Your task to perform on an android device: Open the stopwatch Image 0: 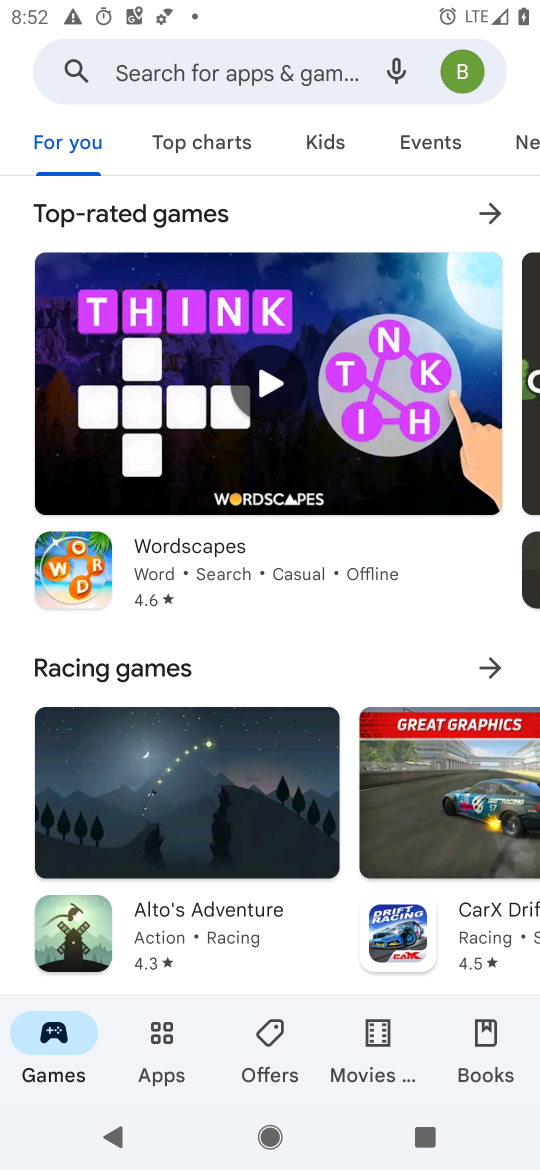
Step 0: drag from (324, 955) to (392, 571)
Your task to perform on an android device: Open the stopwatch Image 1: 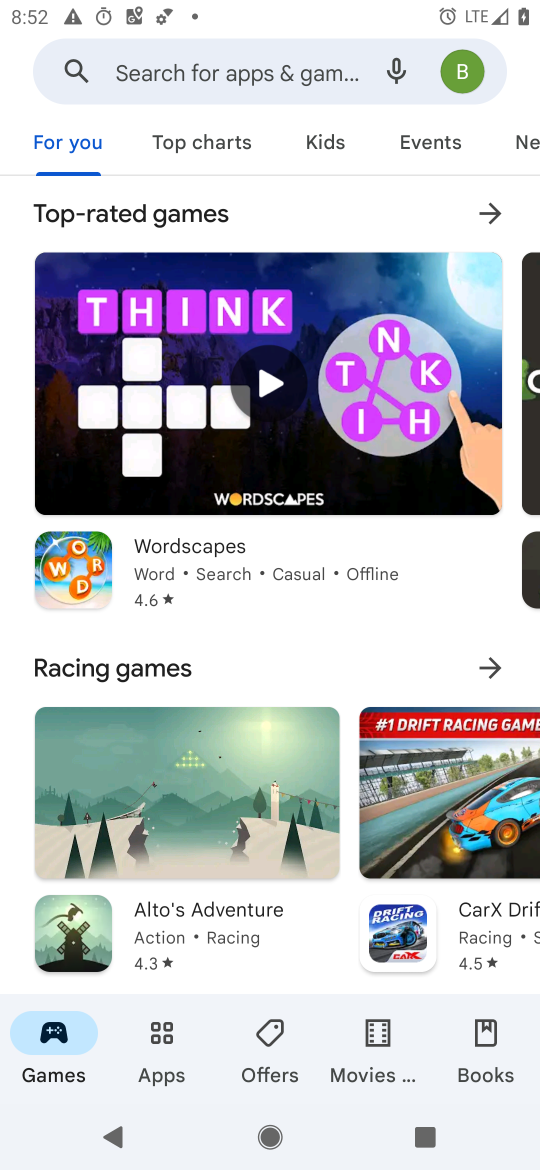
Step 1: press home button
Your task to perform on an android device: Open the stopwatch Image 2: 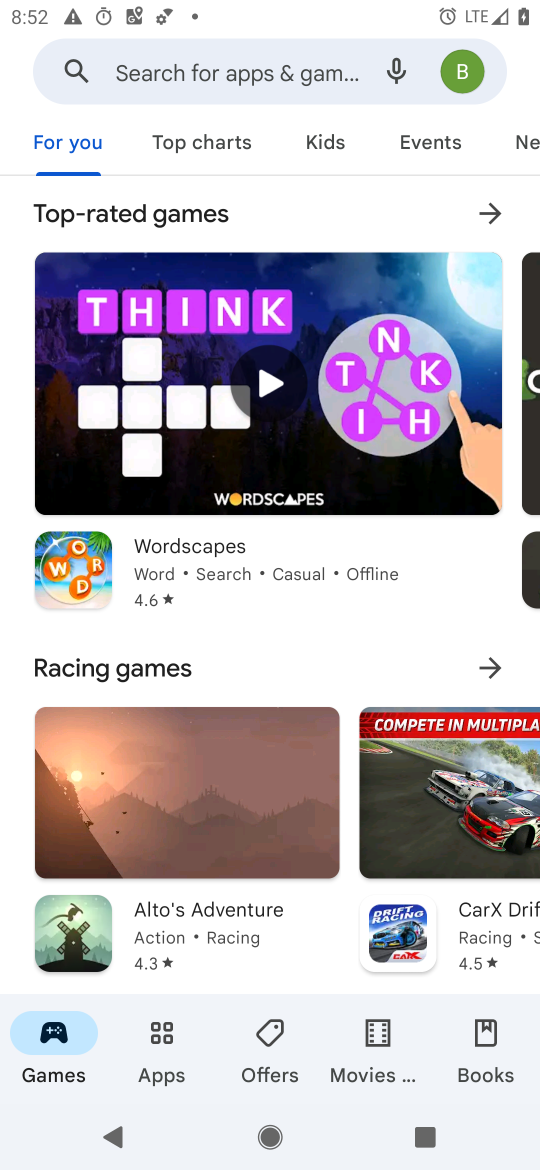
Step 2: drag from (386, 15) to (0, 472)
Your task to perform on an android device: Open the stopwatch Image 3: 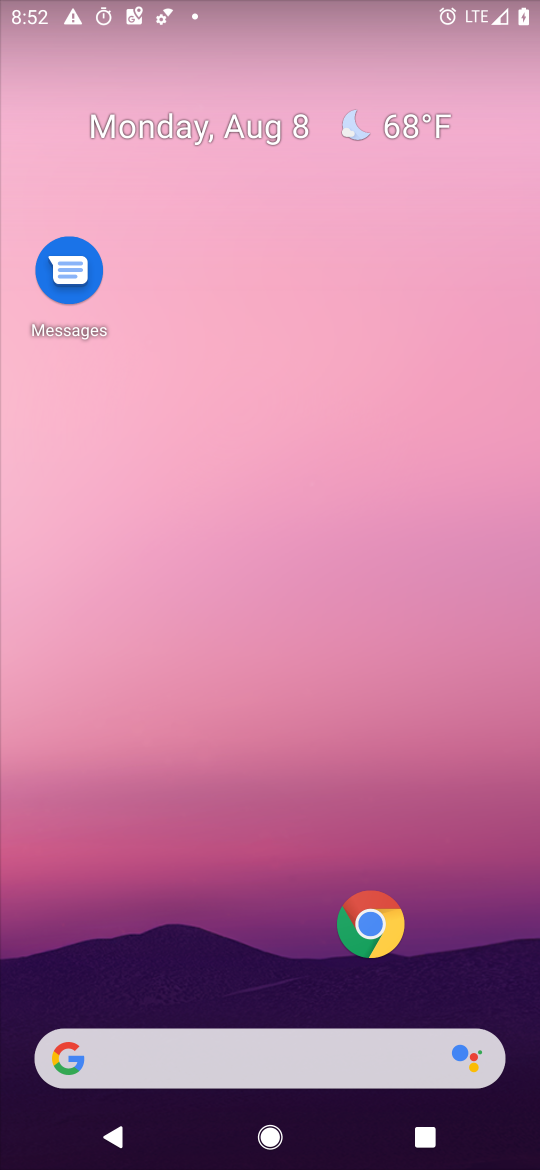
Step 3: drag from (295, 954) to (316, 382)
Your task to perform on an android device: Open the stopwatch Image 4: 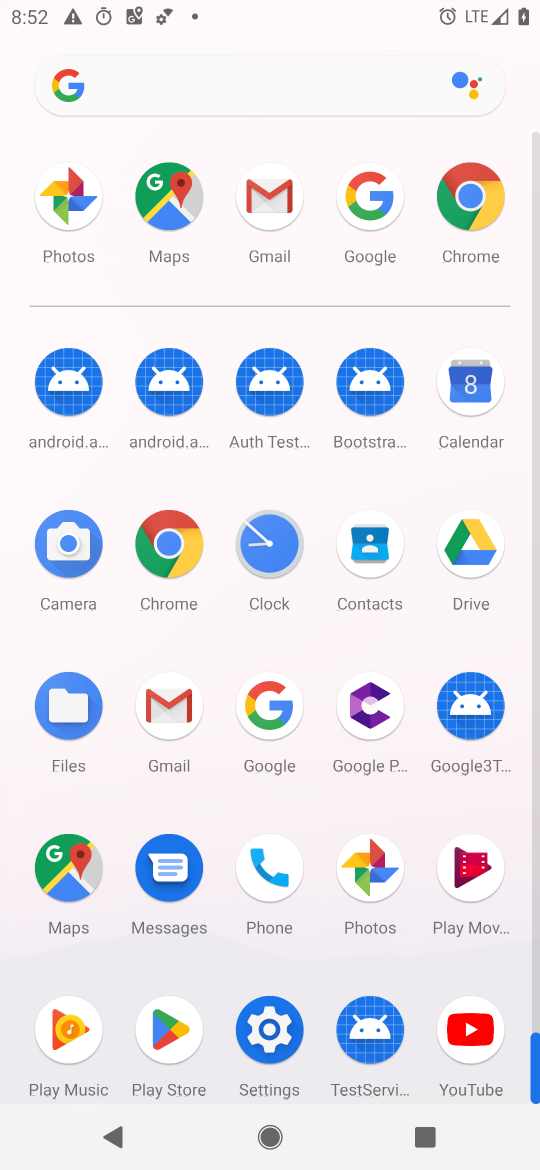
Step 4: click (485, 384)
Your task to perform on an android device: Open the stopwatch Image 5: 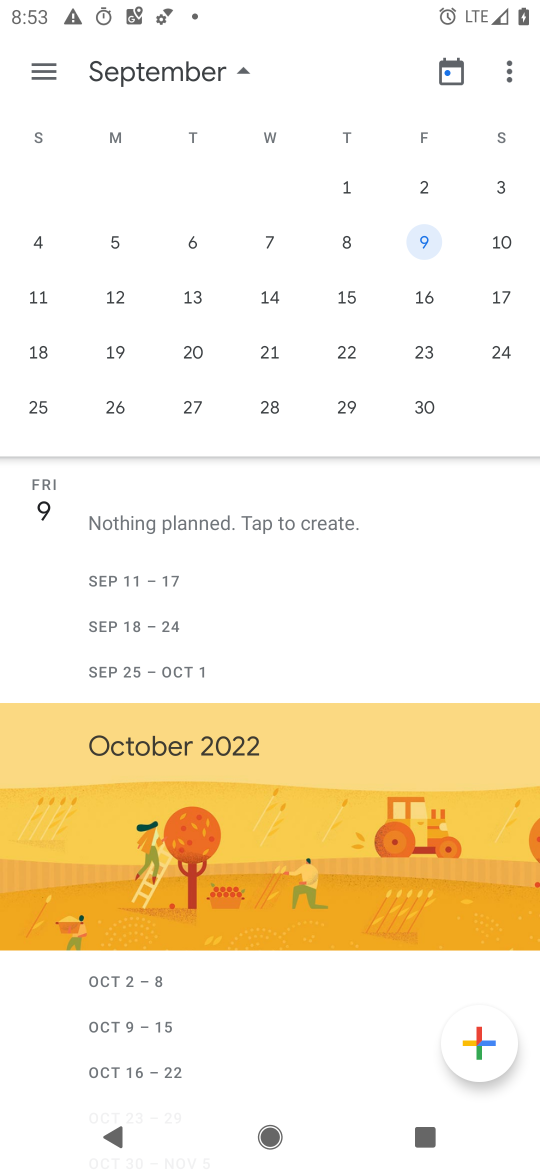
Step 5: press home button
Your task to perform on an android device: Open the stopwatch Image 6: 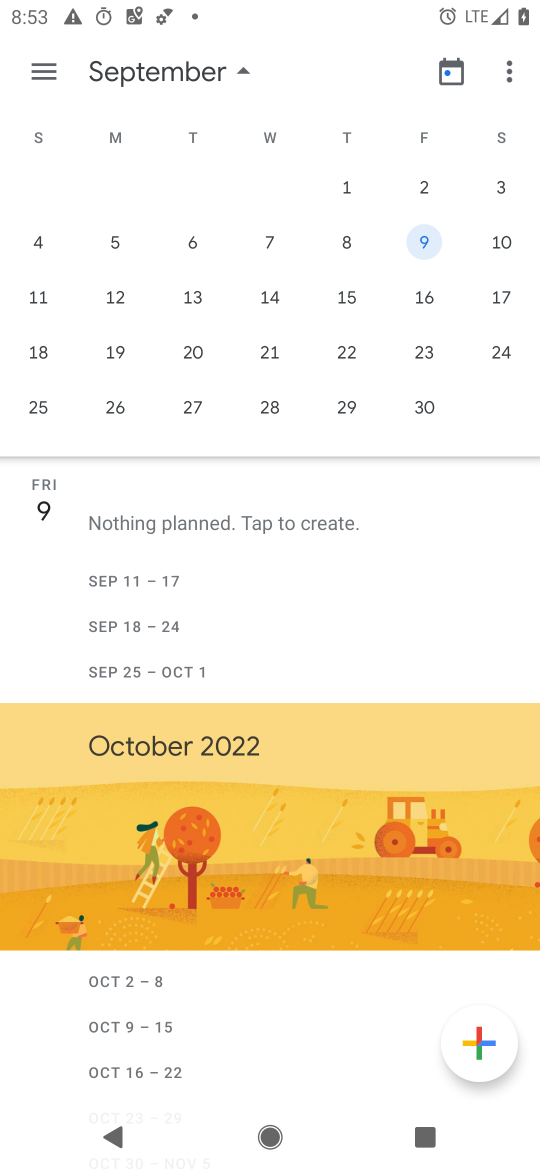
Step 6: drag from (268, 973) to (444, 329)
Your task to perform on an android device: Open the stopwatch Image 7: 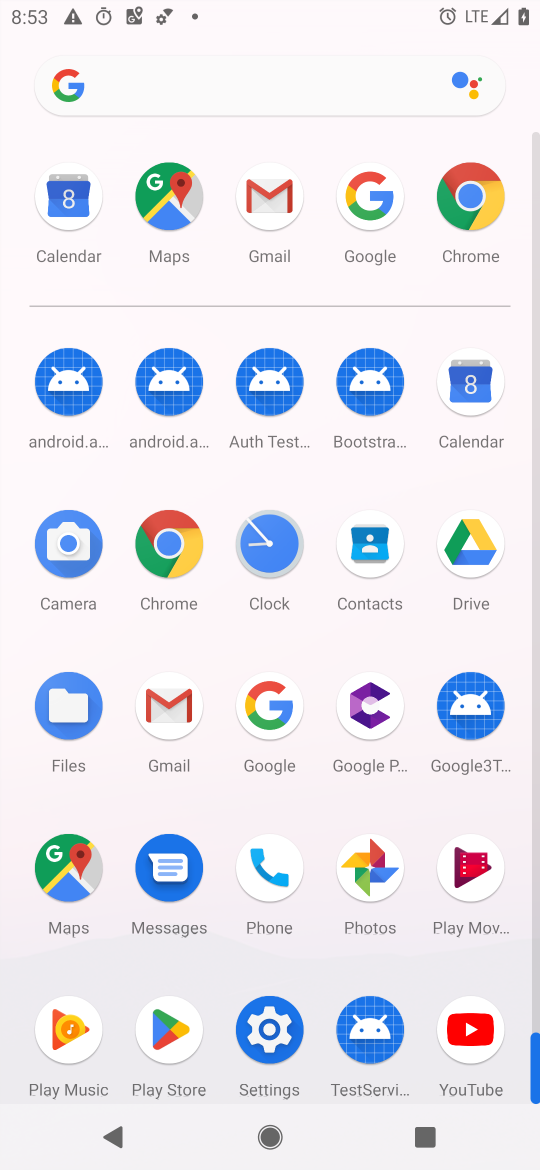
Step 7: click (282, 519)
Your task to perform on an android device: Open the stopwatch Image 8: 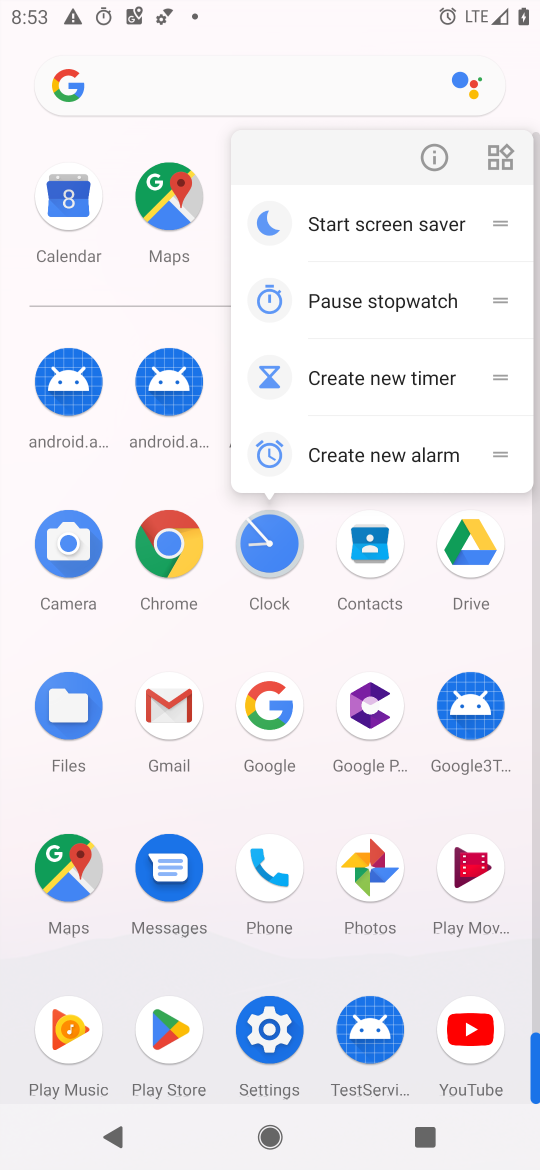
Step 8: click (427, 154)
Your task to perform on an android device: Open the stopwatch Image 9: 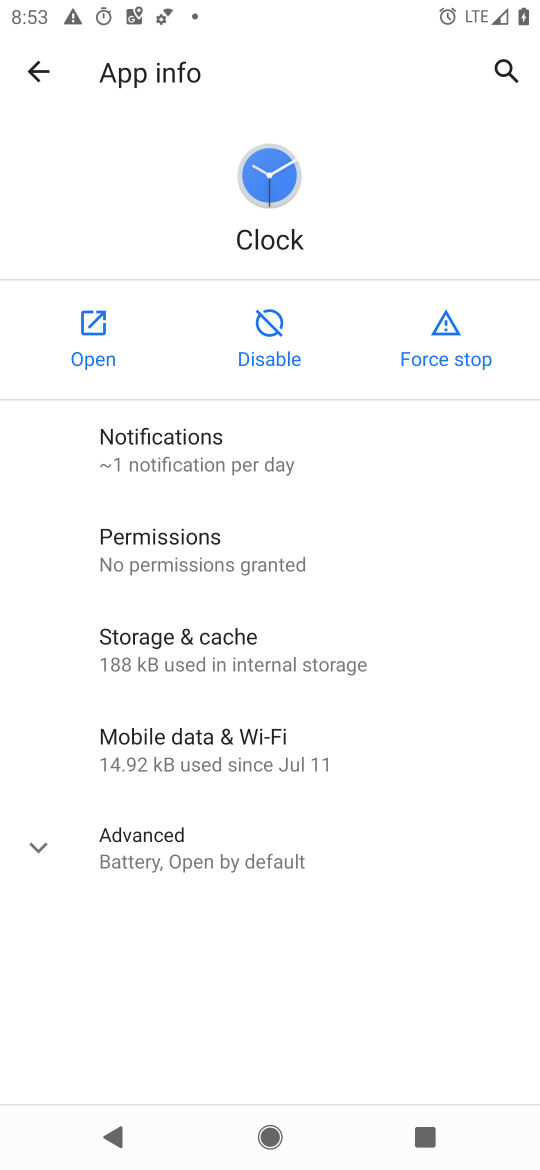
Step 9: click (88, 348)
Your task to perform on an android device: Open the stopwatch Image 10: 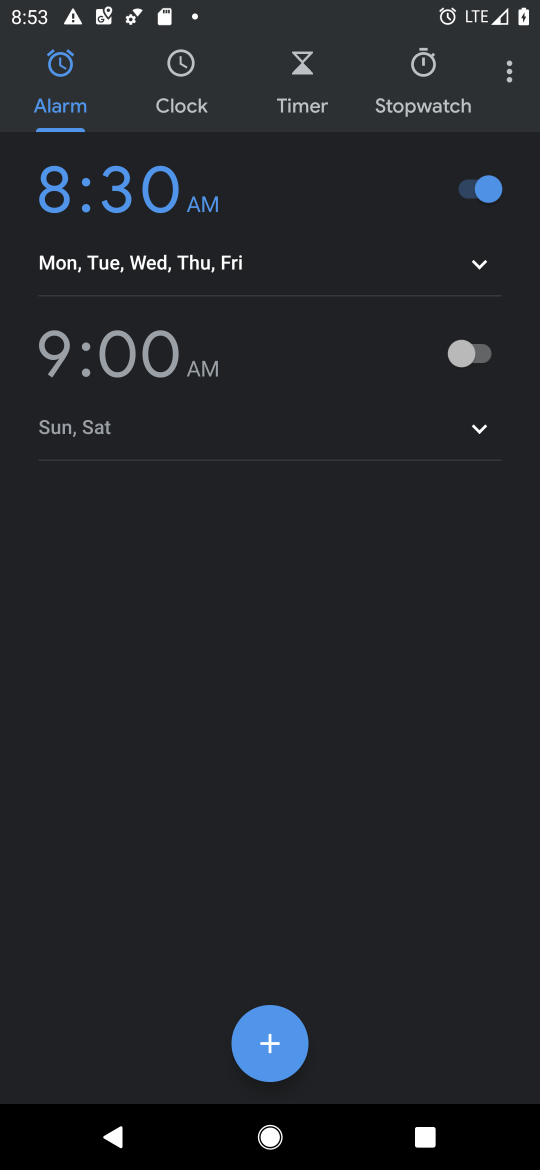
Step 10: click (422, 100)
Your task to perform on an android device: Open the stopwatch Image 11: 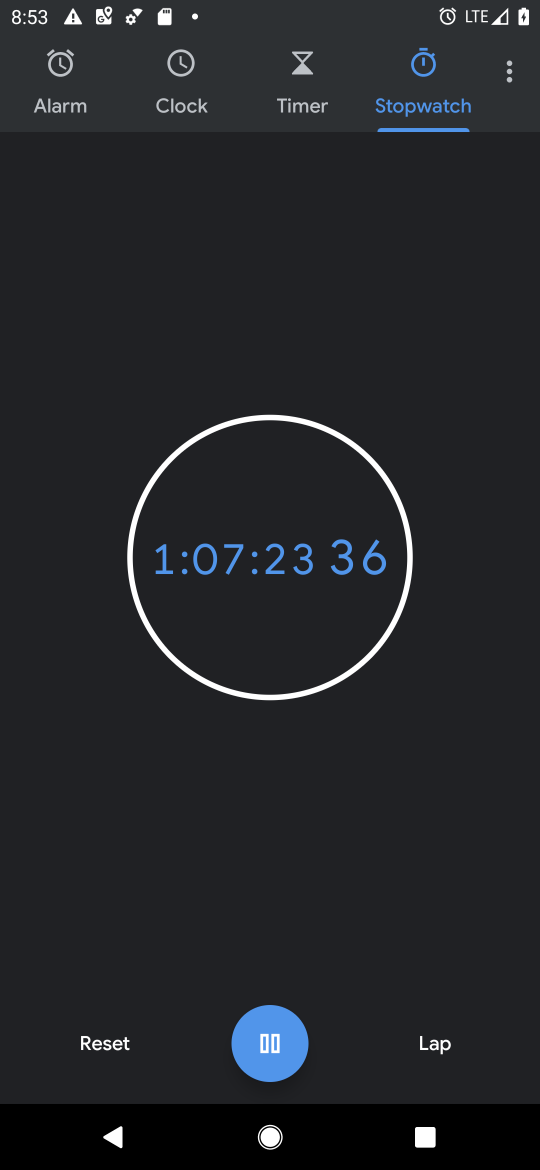
Step 11: task complete